Your task to perform on an android device: Open Yahoo.com Image 0: 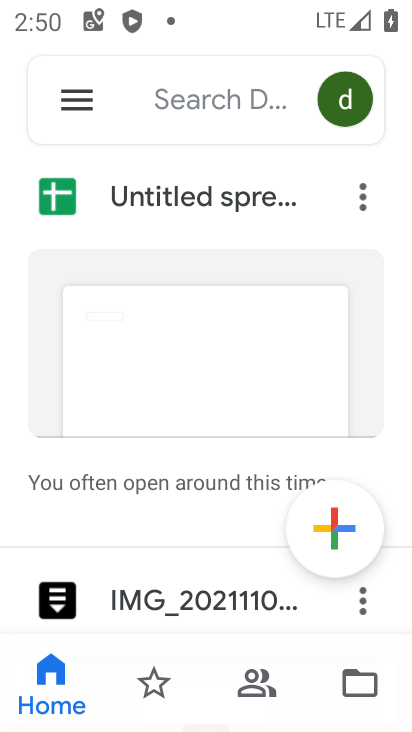
Step 0: press home button
Your task to perform on an android device: Open Yahoo.com Image 1: 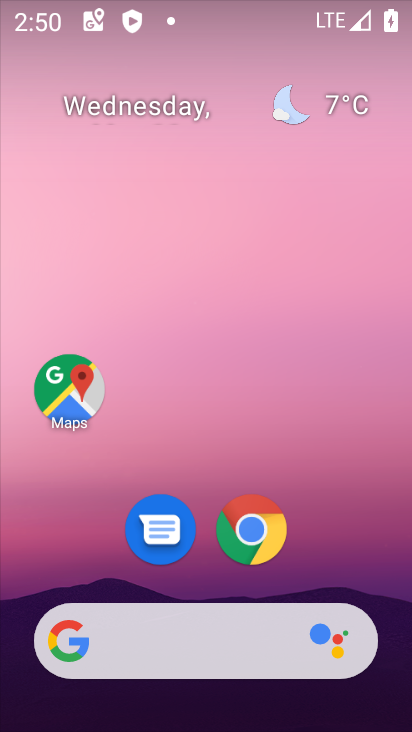
Step 1: click (259, 506)
Your task to perform on an android device: Open Yahoo.com Image 2: 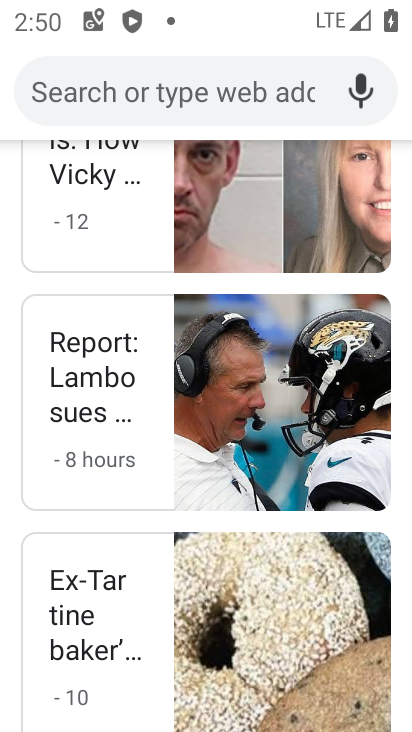
Step 2: click (233, 94)
Your task to perform on an android device: Open Yahoo.com Image 3: 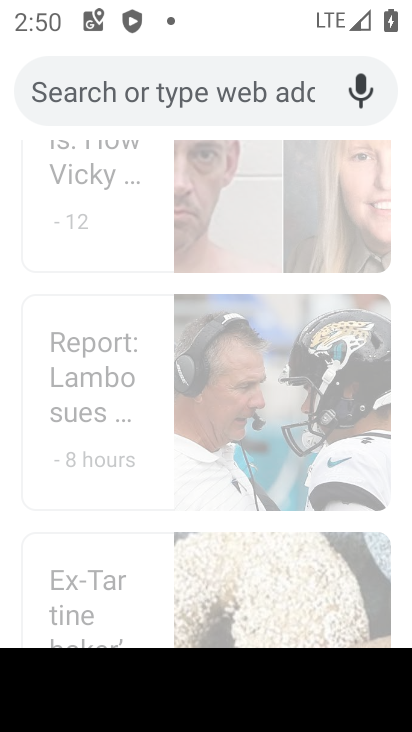
Step 3: type "yahoo"
Your task to perform on an android device: Open Yahoo.com Image 4: 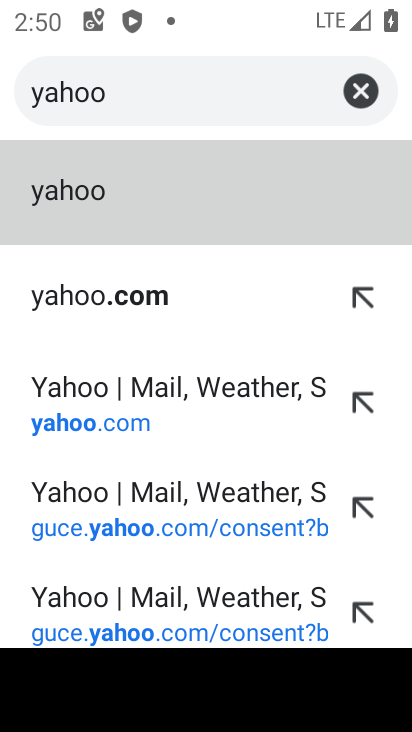
Step 4: click (85, 209)
Your task to perform on an android device: Open Yahoo.com Image 5: 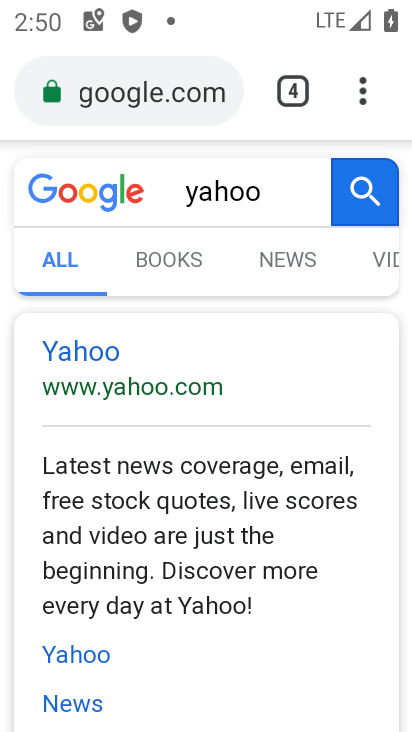
Step 5: click (120, 363)
Your task to perform on an android device: Open Yahoo.com Image 6: 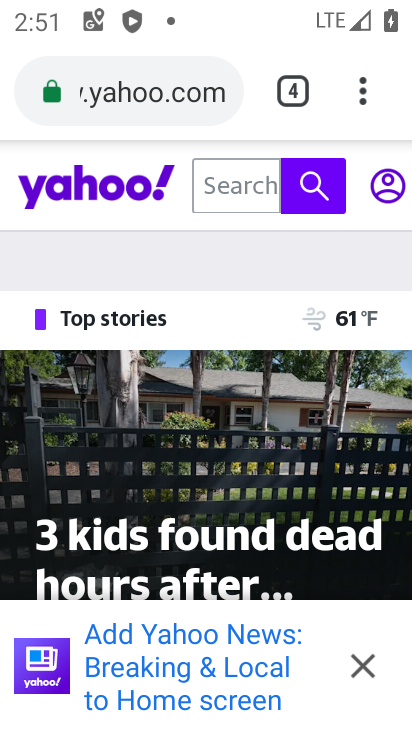
Step 6: task complete